Your task to perform on an android device: Open calendar and show me the second week of next month Image 0: 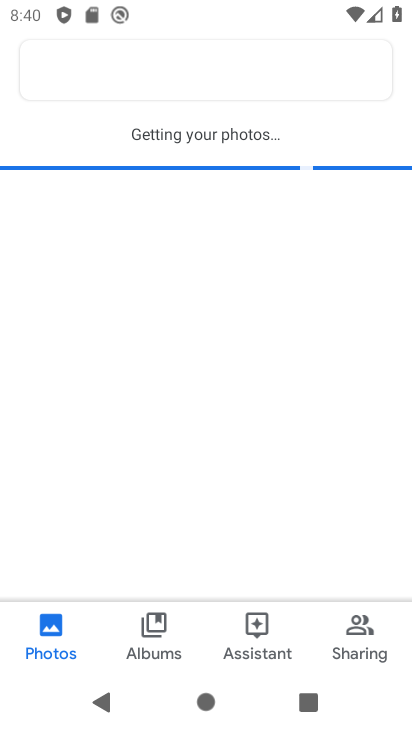
Step 0: press home button
Your task to perform on an android device: Open calendar and show me the second week of next month Image 1: 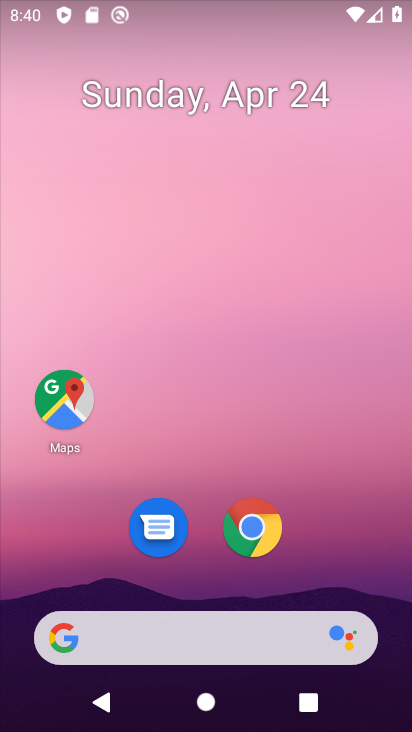
Step 1: click (265, 26)
Your task to perform on an android device: Open calendar and show me the second week of next month Image 2: 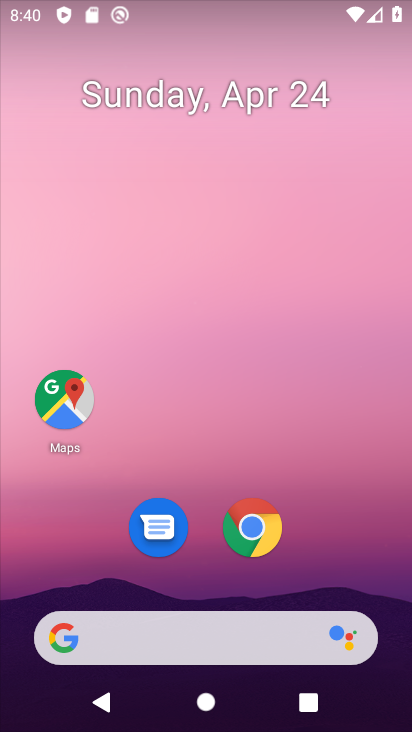
Step 2: drag from (393, 595) to (235, 91)
Your task to perform on an android device: Open calendar and show me the second week of next month Image 3: 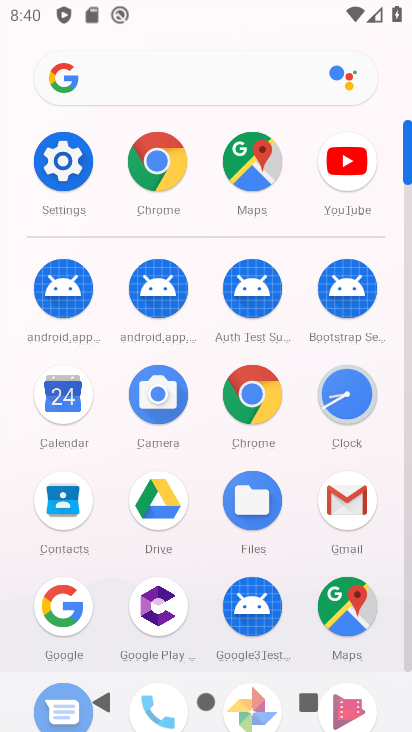
Step 3: click (52, 402)
Your task to perform on an android device: Open calendar and show me the second week of next month Image 4: 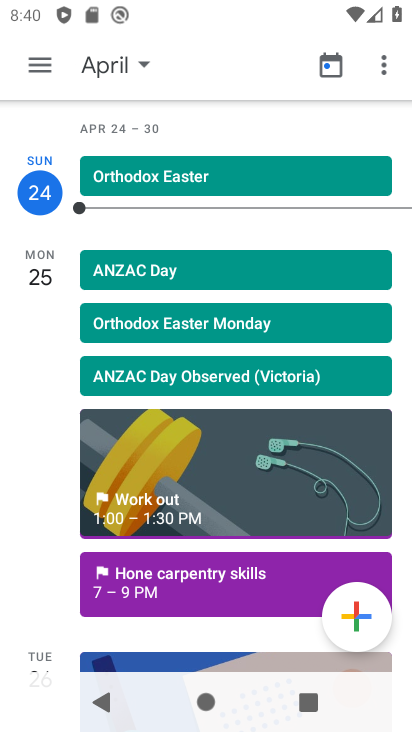
Step 4: click (91, 68)
Your task to perform on an android device: Open calendar and show me the second week of next month Image 5: 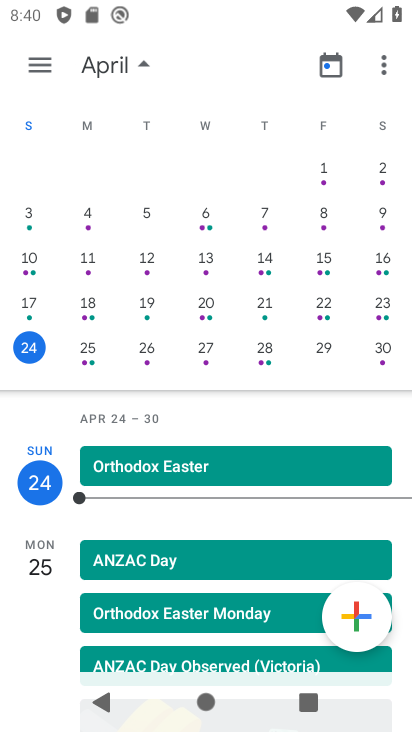
Step 5: drag from (339, 283) to (37, 226)
Your task to perform on an android device: Open calendar and show me the second week of next month Image 6: 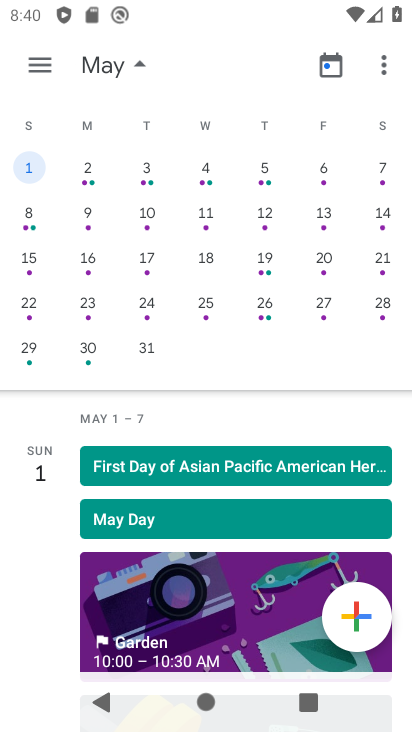
Step 6: click (34, 219)
Your task to perform on an android device: Open calendar and show me the second week of next month Image 7: 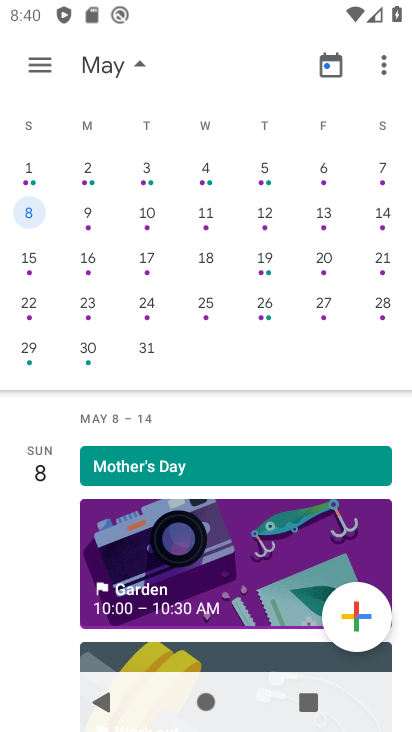
Step 7: task complete